Your task to perform on an android device: find snoozed emails in the gmail app Image 0: 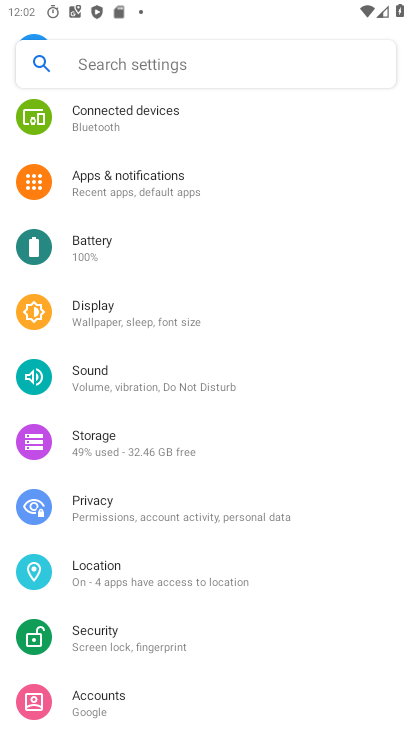
Step 0: press home button
Your task to perform on an android device: find snoozed emails in the gmail app Image 1: 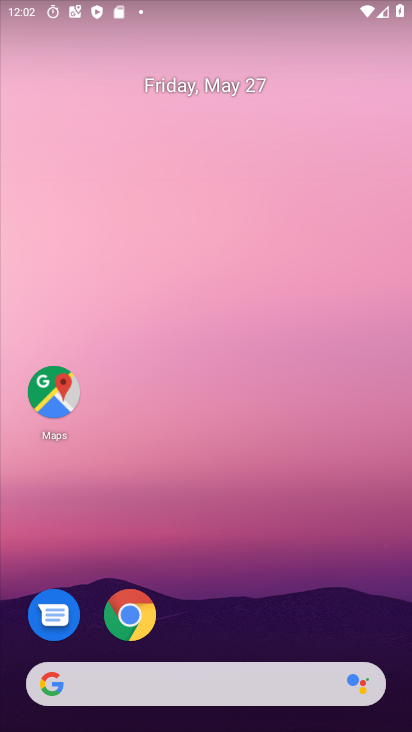
Step 1: drag from (269, 560) to (196, 150)
Your task to perform on an android device: find snoozed emails in the gmail app Image 2: 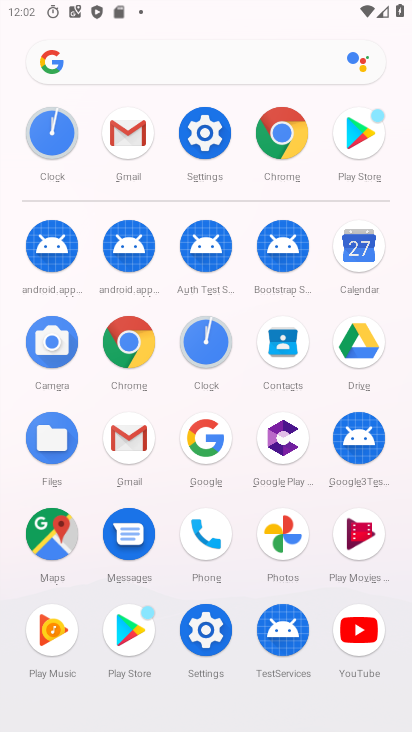
Step 2: click (114, 145)
Your task to perform on an android device: find snoozed emails in the gmail app Image 3: 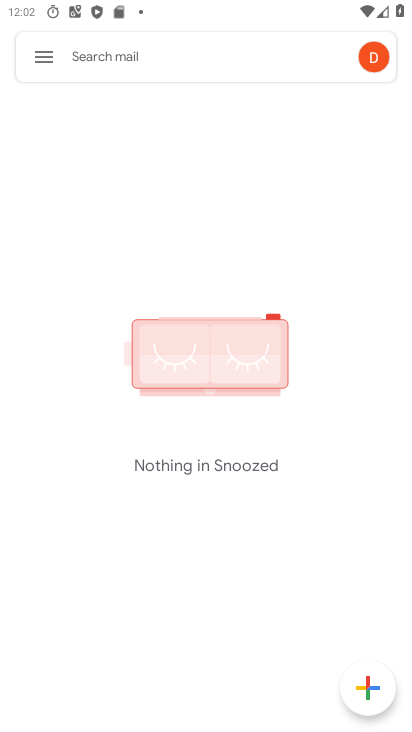
Step 3: click (46, 68)
Your task to perform on an android device: find snoozed emails in the gmail app Image 4: 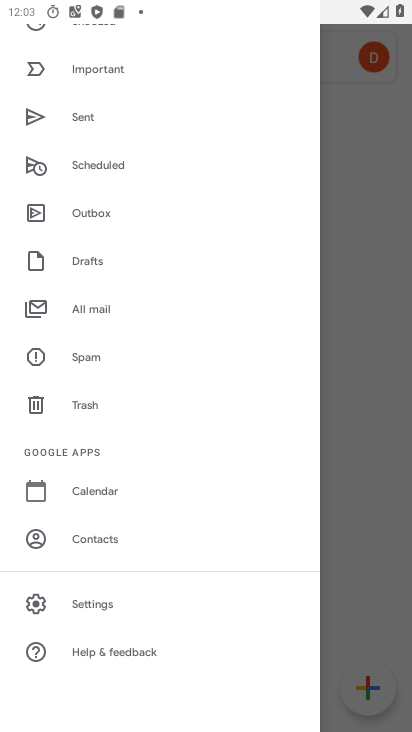
Step 4: drag from (123, 112) to (123, 552)
Your task to perform on an android device: find snoozed emails in the gmail app Image 5: 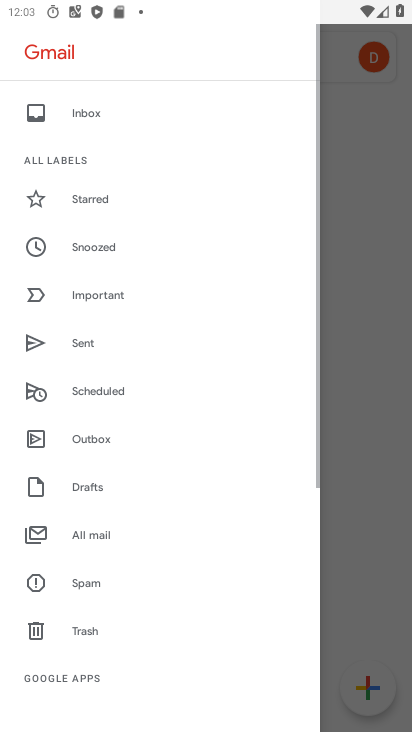
Step 5: click (101, 249)
Your task to perform on an android device: find snoozed emails in the gmail app Image 6: 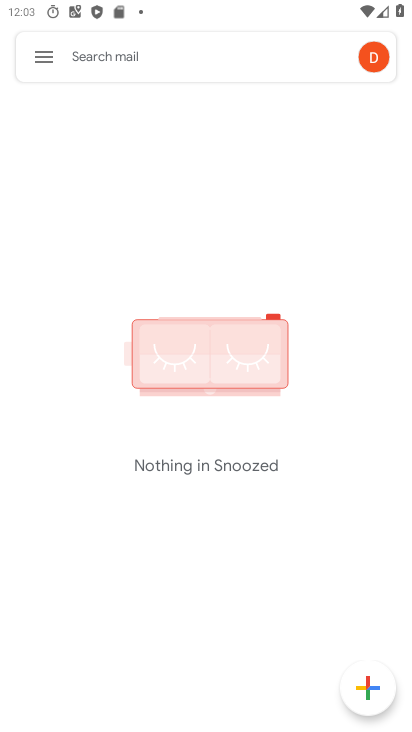
Step 6: task complete